Your task to perform on an android device: stop showing notifications on the lock screen Image 0: 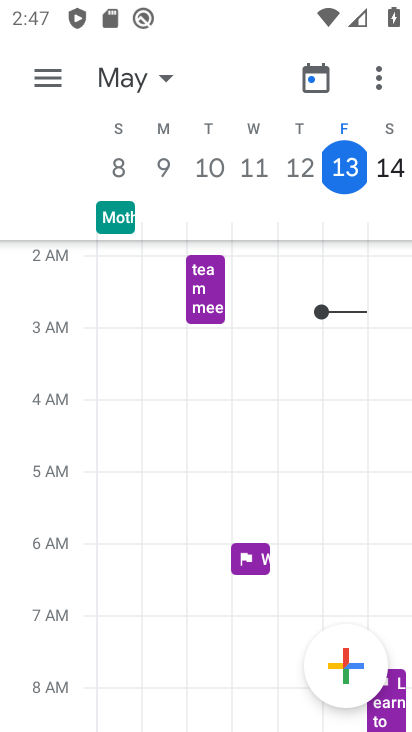
Step 0: press home button
Your task to perform on an android device: stop showing notifications on the lock screen Image 1: 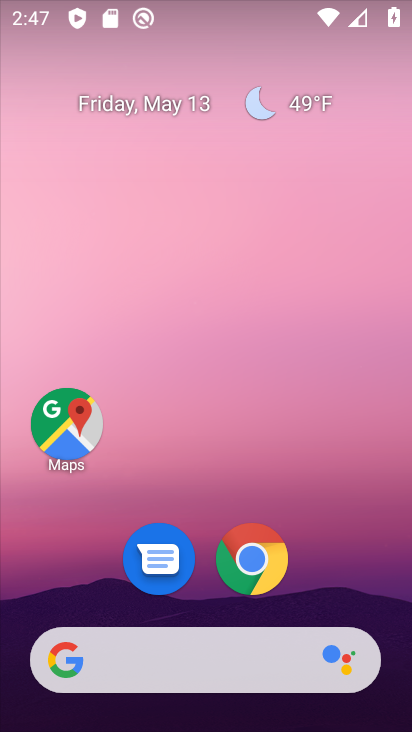
Step 1: drag from (396, 610) to (288, 97)
Your task to perform on an android device: stop showing notifications on the lock screen Image 2: 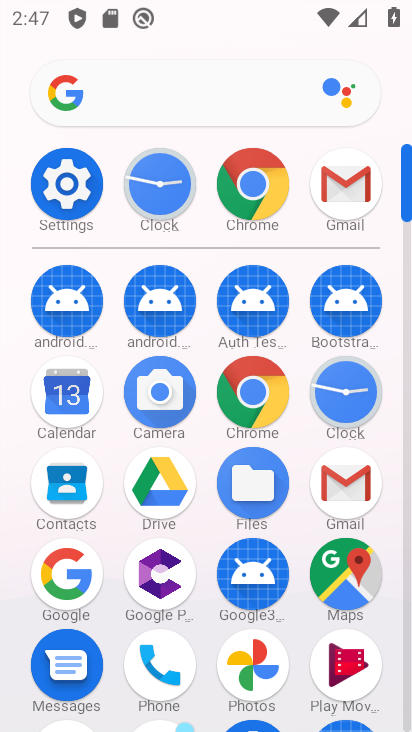
Step 2: click (409, 704)
Your task to perform on an android device: stop showing notifications on the lock screen Image 3: 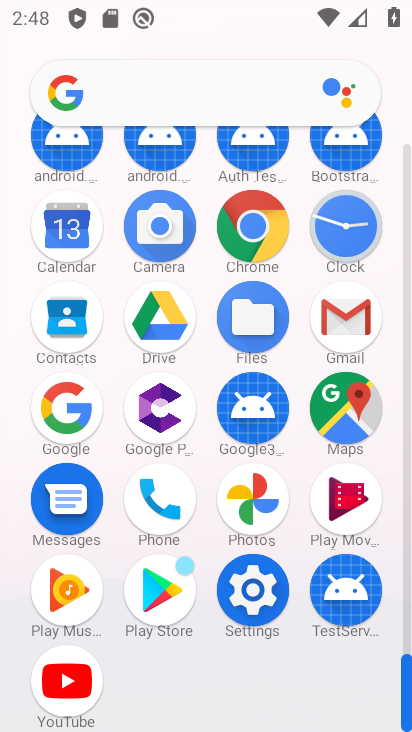
Step 3: click (251, 590)
Your task to perform on an android device: stop showing notifications on the lock screen Image 4: 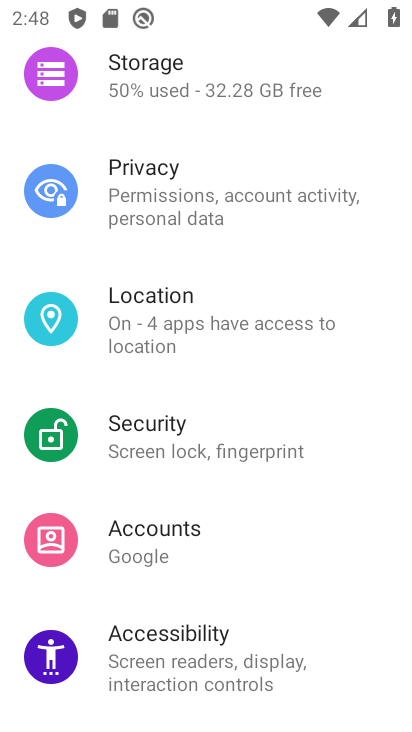
Step 4: drag from (303, 249) to (332, 615)
Your task to perform on an android device: stop showing notifications on the lock screen Image 5: 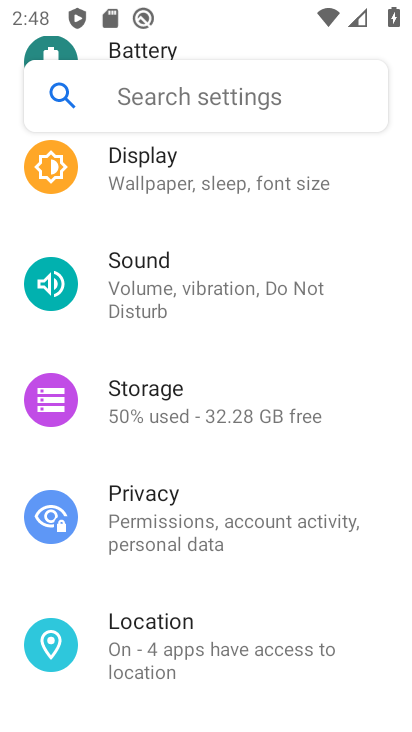
Step 5: drag from (333, 256) to (365, 511)
Your task to perform on an android device: stop showing notifications on the lock screen Image 6: 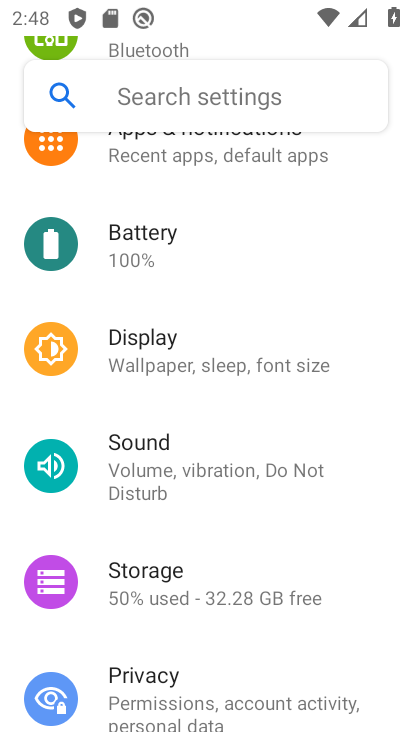
Step 6: drag from (304, 254) to (324, 564)
Your task to perform on an android device: stop showing notifications on the lock screen Image 7: 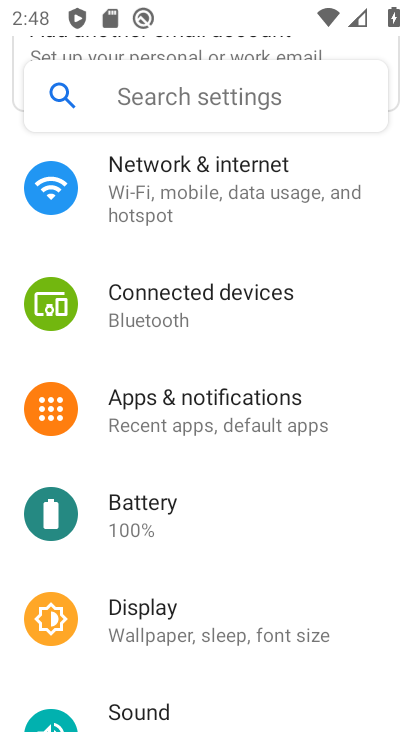
Step 7: click (204, 413)
Your task to perform on an android device: stop showing notifications on the lock screen Image 8: 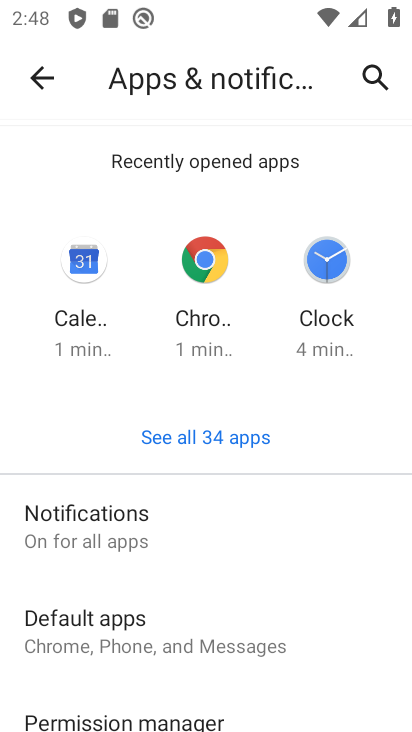
Step 8: click (105, 526)
Your task to perform on an android device: stop showing notifications on the lock screen Image 9: 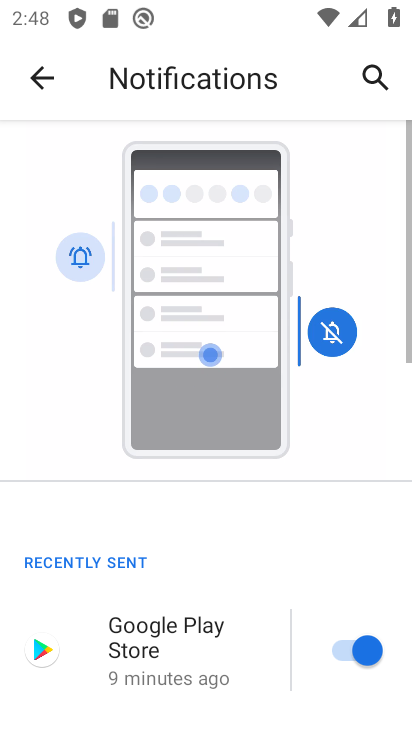
Step 9: drag from (292, 661) to (245, 294)
Your task to perform on an android device: stop showing notifications on the lock screen Image 10: 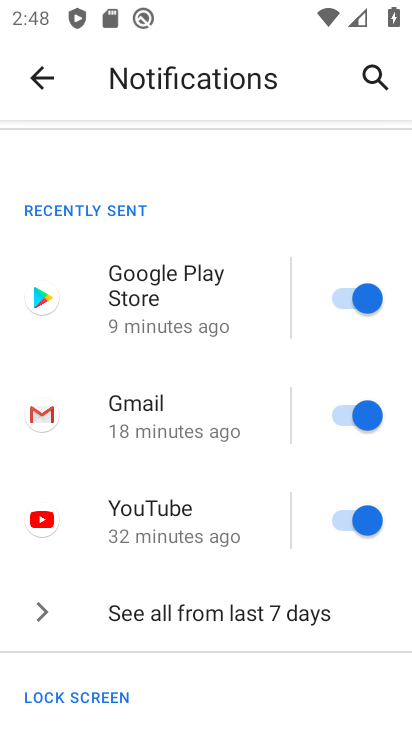
Step 10: drag from (287, 608) to (229, 248)
Your task to perform on an android device: stop showing notifications on the lock screen Image 11: 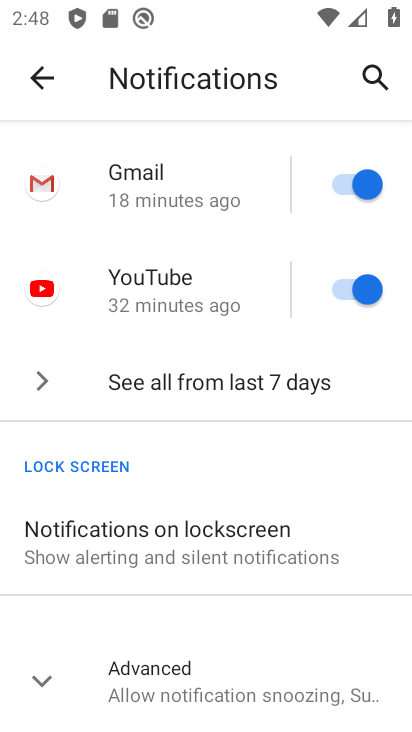
Step 11: click (158, 528)
Your task to perform on an android device: stop showing notifications on the lock screen Image 12: 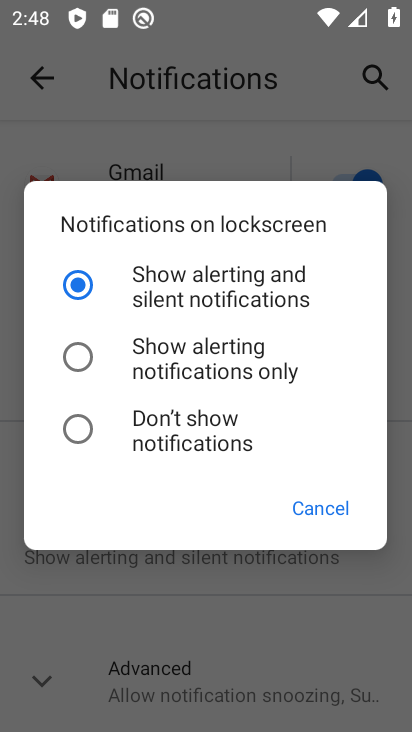
Step 12: click (86, 428)
Your task to perform on an android device: stop showing notifications on the lock screen Image 13: 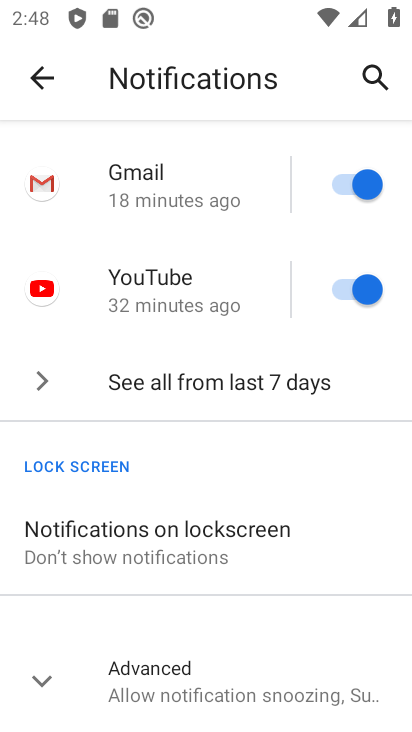
Step 13: task complete